Your task to perform on an android device: turn on wifi Image 0: 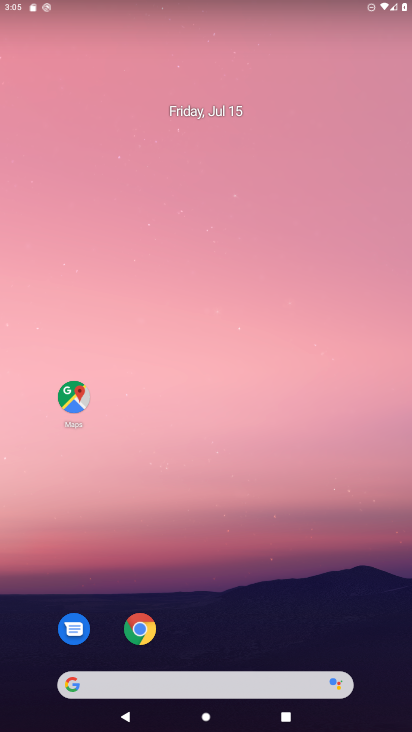
Step 0: drag from (322, 543) to (355, 2)
Your task to perform on an android device: turn on wifi Image 1: 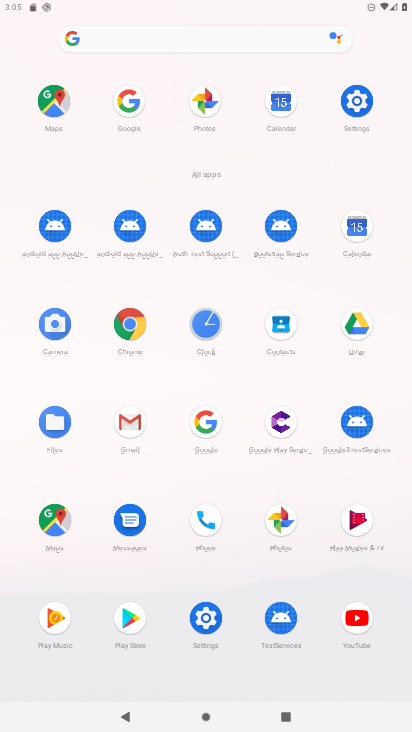
Step 1: click (351, 97)
Your task to perform on an android device: turn on wifi Image 2: 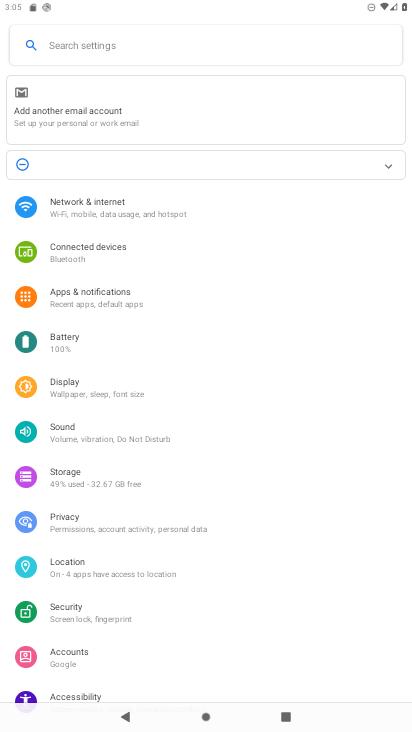
Step 2: click (108, 199)
Your task to perform on an android device: turn on wifi Image 3: 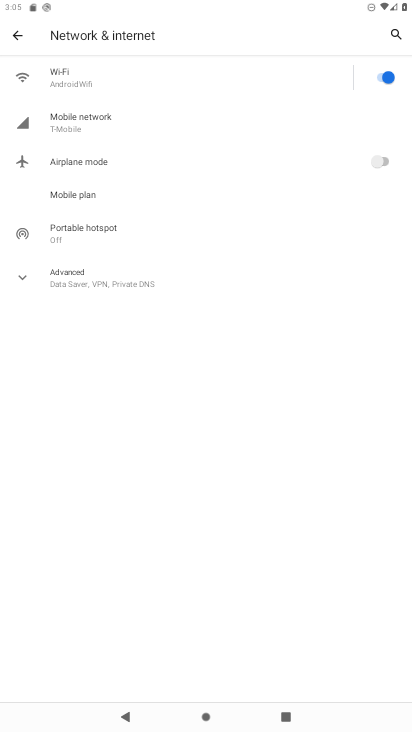
Step 3: task complete